Your task to perform on an android device: find snoozed emails in the gmail app Image 0: 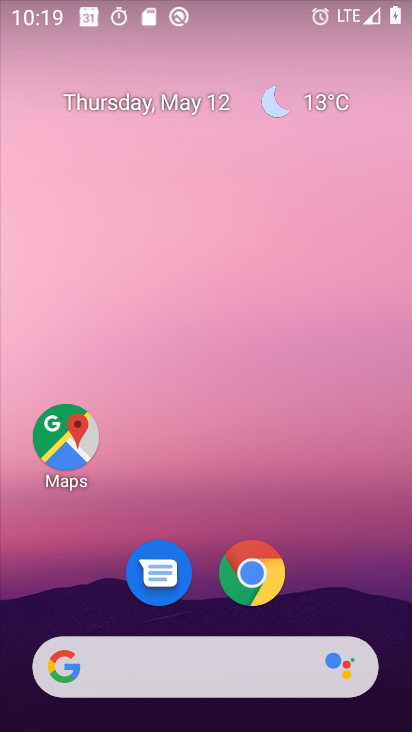
Step 0: drag from (398, 678) to (383, 229)
Your task to perform on an android device: find snoozed emails in the gmail app Image 1: 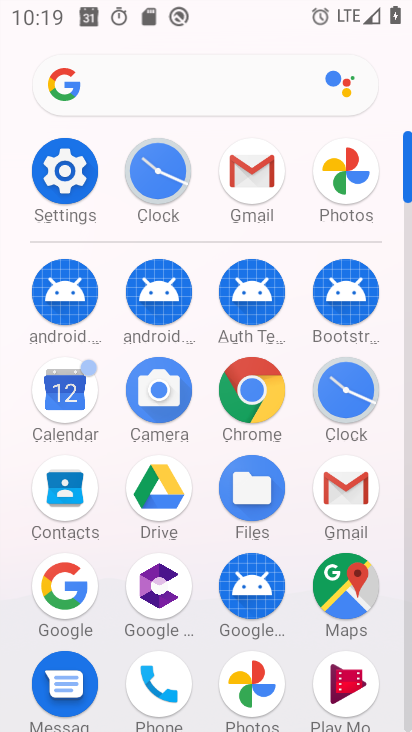
Step 1: click (343, 501)
Your task to perform on an android device: find snoozed emails in the gmail app Image 2: 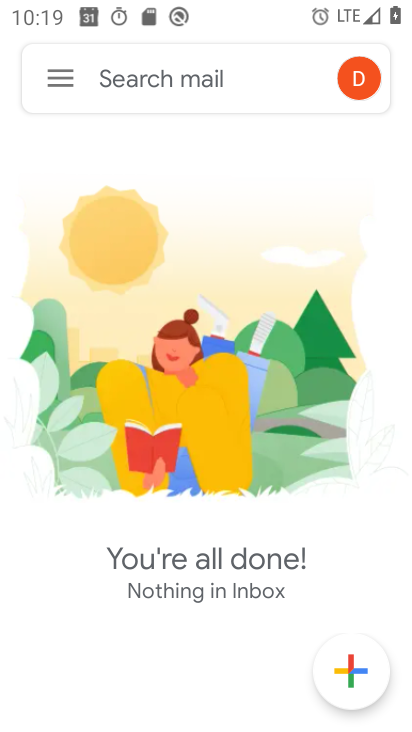
Step 2: click (59, 79)
Your task to perform on an android device: find snoozed emails in the gmail app Image 3: 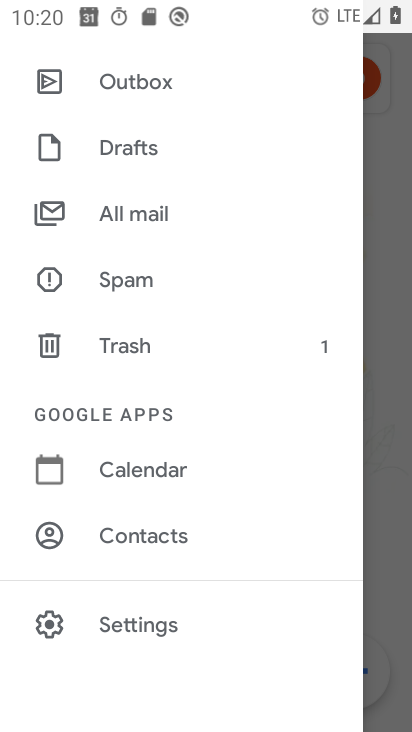
Step 3: drag from (241, 129) to (268, 403)
Your task to perform on an android device: find snoozed emails in the gmail app Image 4: 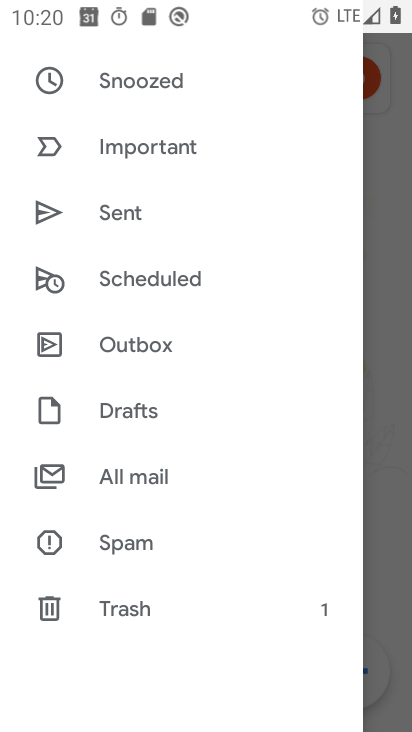
Step 4: click (278, 331)
Your task to perform on an android device: find snoozed emails in the gmail app Image 5: 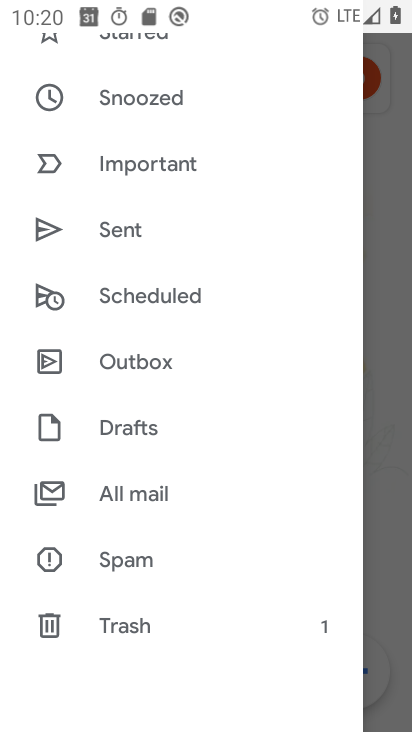
Step 5: click (135, 101)
Your task to perform on an android device: find snoozed emails in the gmail app Image 6: 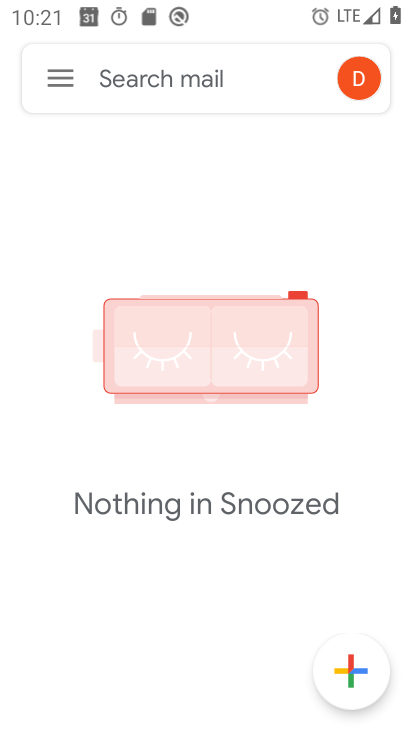
Step 6: task complete